Your task to perform on an android device: toggle airplane mode Image 0: 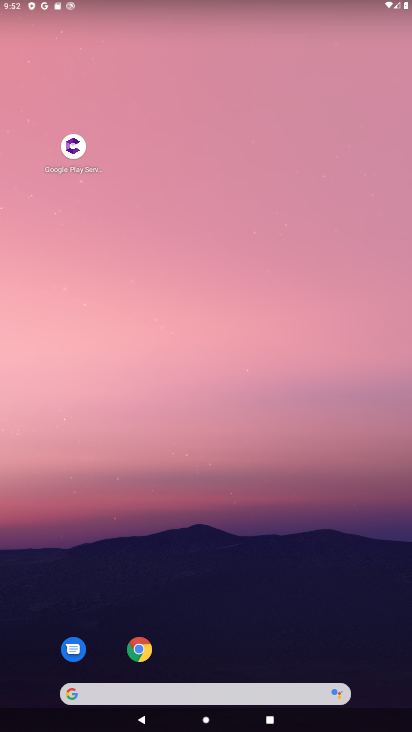
Step 0: drag from (193, 667) to (206, 335)
Your task to perform on an android device: toggle airplane mode Image 1: 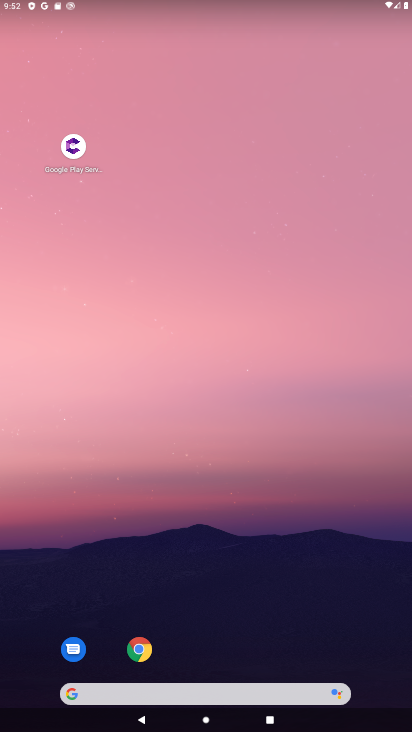
Step 1: drag from (259, 694) to (298, 169)
Your task to perform on an android device: toggle airplane mode Image 2: 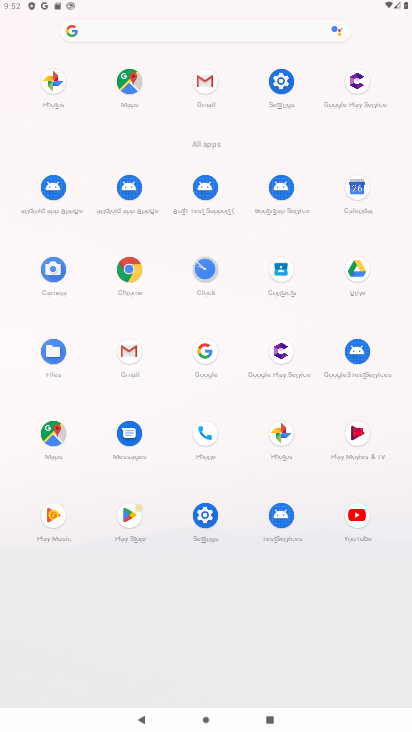
Step 2: click (277, 79)
Your task to perform on an android device: toggle airplane mode Image 3: 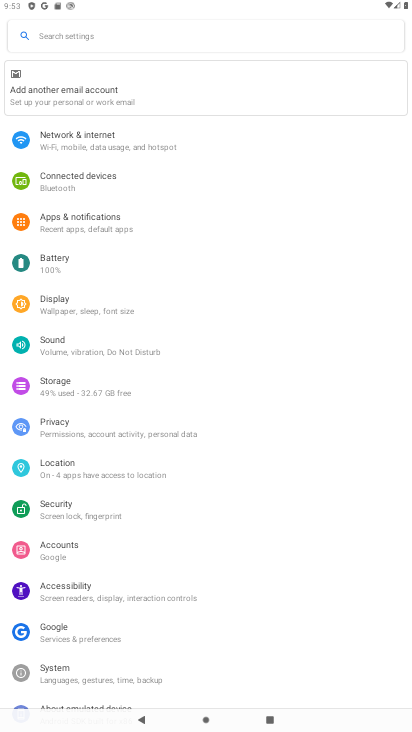
Step 3: click (64, 140)
Your task to perform on an android device: toggle airplane mode Image 4: 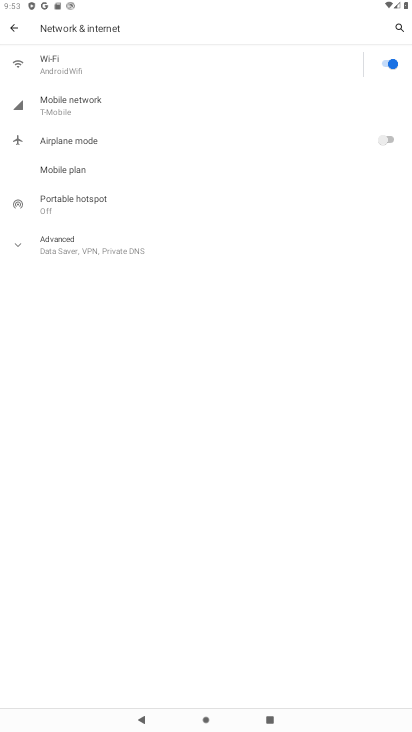
Step 4: click (392, 137)
Your task to perform on an android device: toggle airplane mode Image 5: 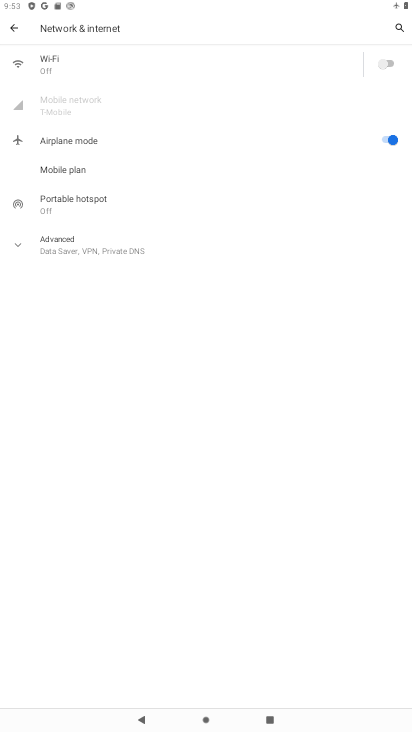
Step 5: task complete